Your task to perform on an android device: check google app version Image 0: 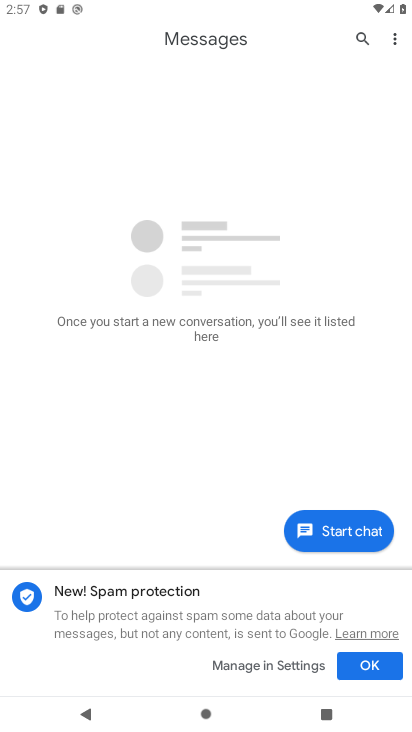
Step 0: press home button
Your task to perform on an android device: check google app version Image 1: 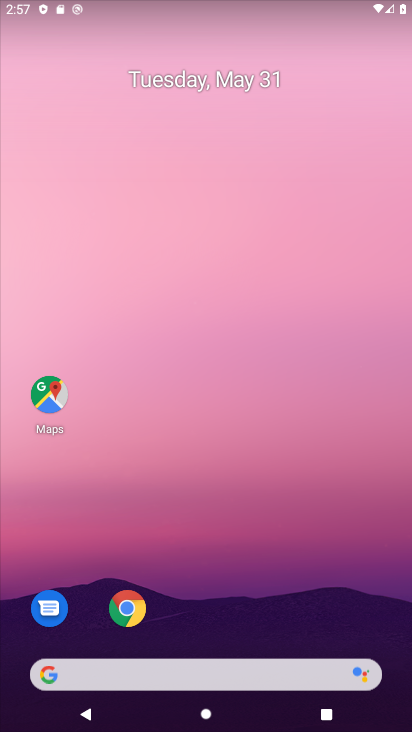
Step 1: drag from (253, 624) to (180, 68)
Your task to perform on an android device: check google app version Image 2: 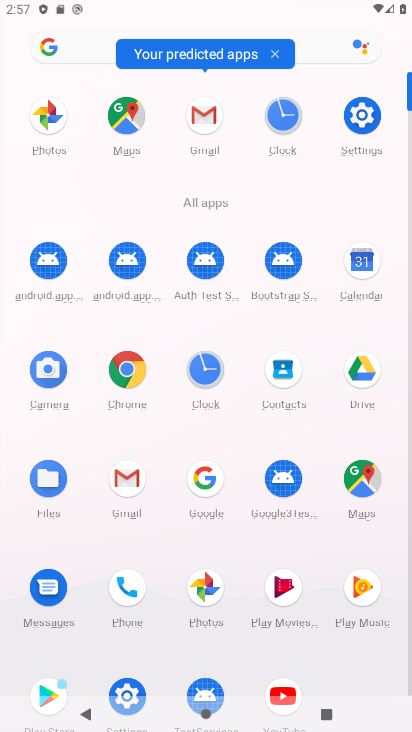
Step 2: click (204, 471)
Your task to perform on an android device: check google app version Image 3: 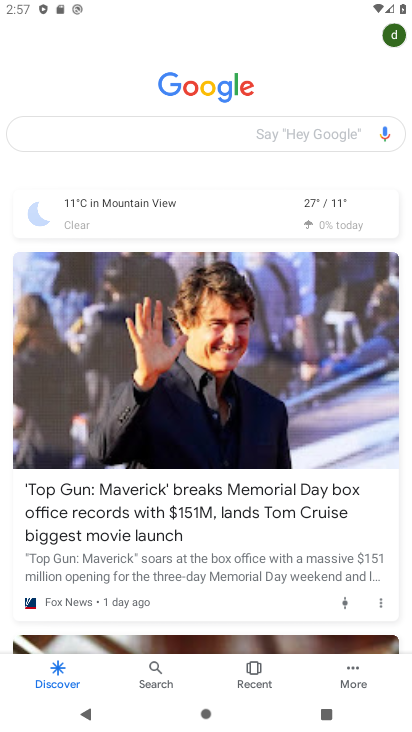
Step 3: press back button
Your task to perform on an android device: check google app version Image 4: 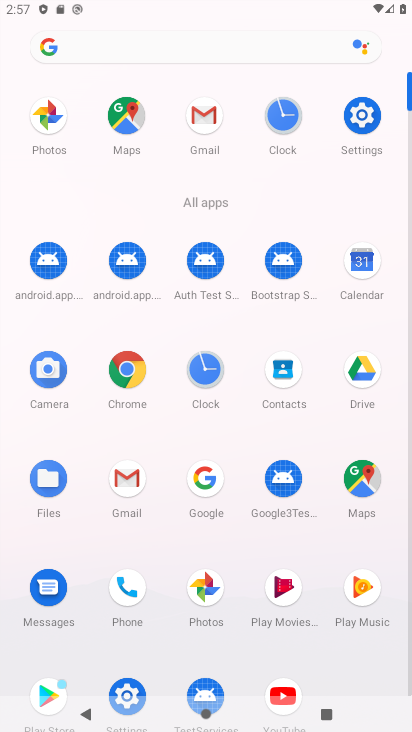
Step 4: click (202, 493)
Your task to perform on an android device: check google app version Image 5: 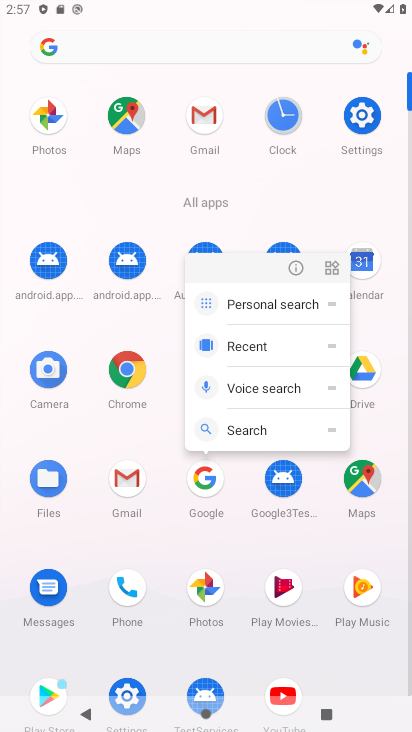
Step 5: click (293, 256)
Your task to perform on an android device: check google app version Image 6: 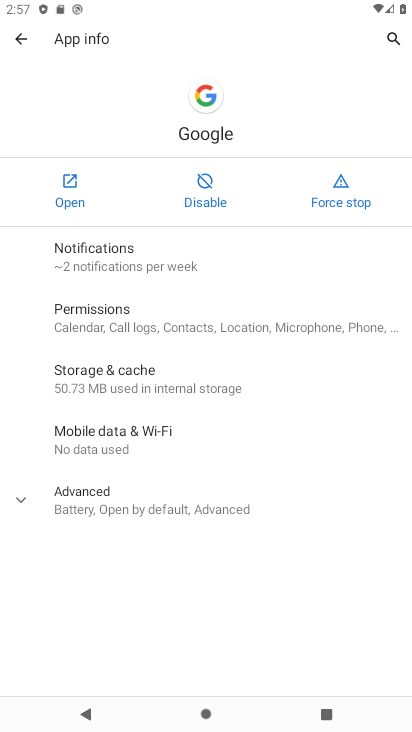
Step 6: click (141, 505)
Your task to perform on an android device: check google app version Image 7: 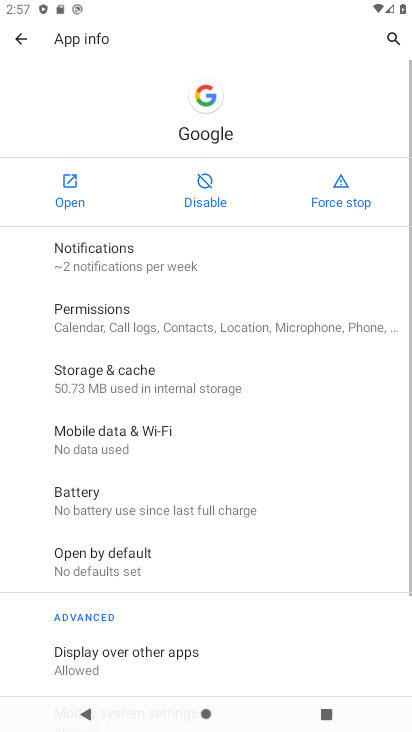
Step 7: task complete